Your task to perform on an android device: Open the web browser Image 0: 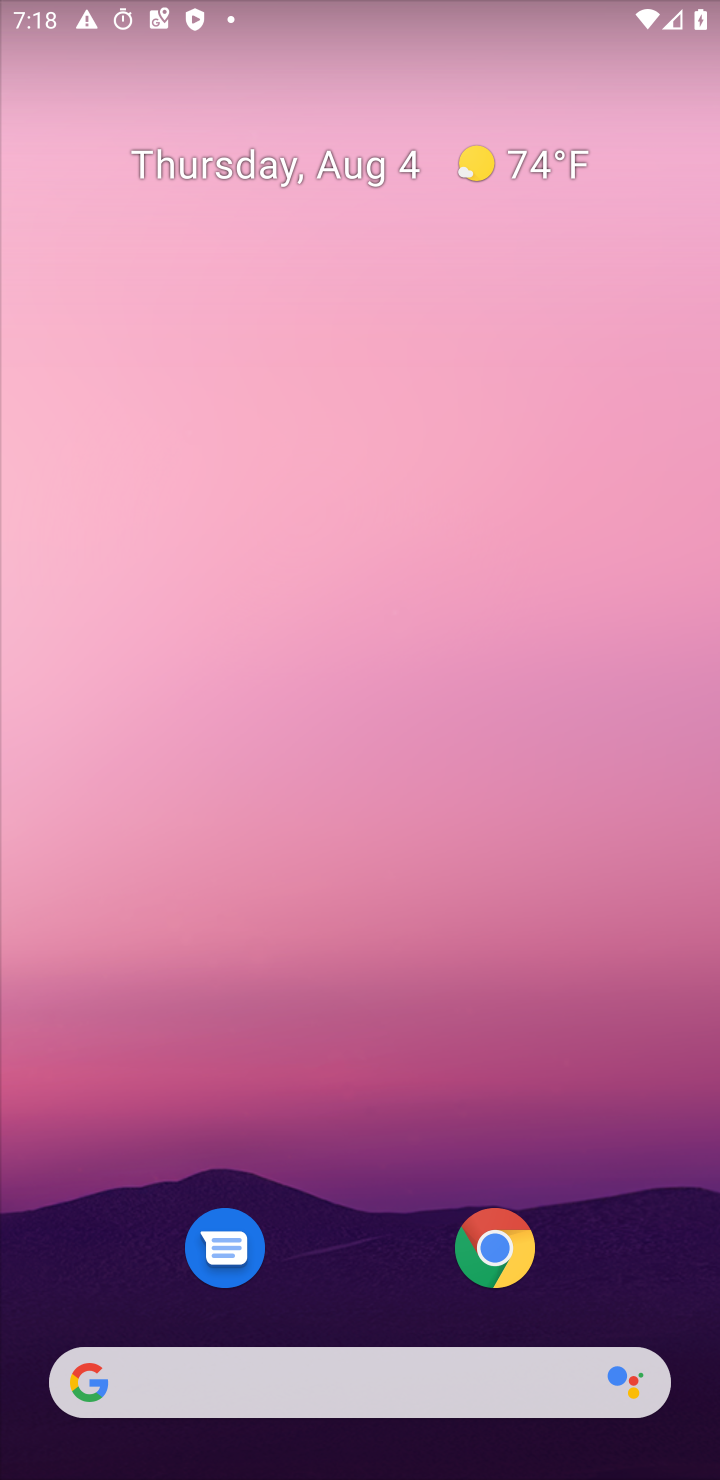
Step 0: press home button
Your task to perform on an android device: Open the web browser Image 1: 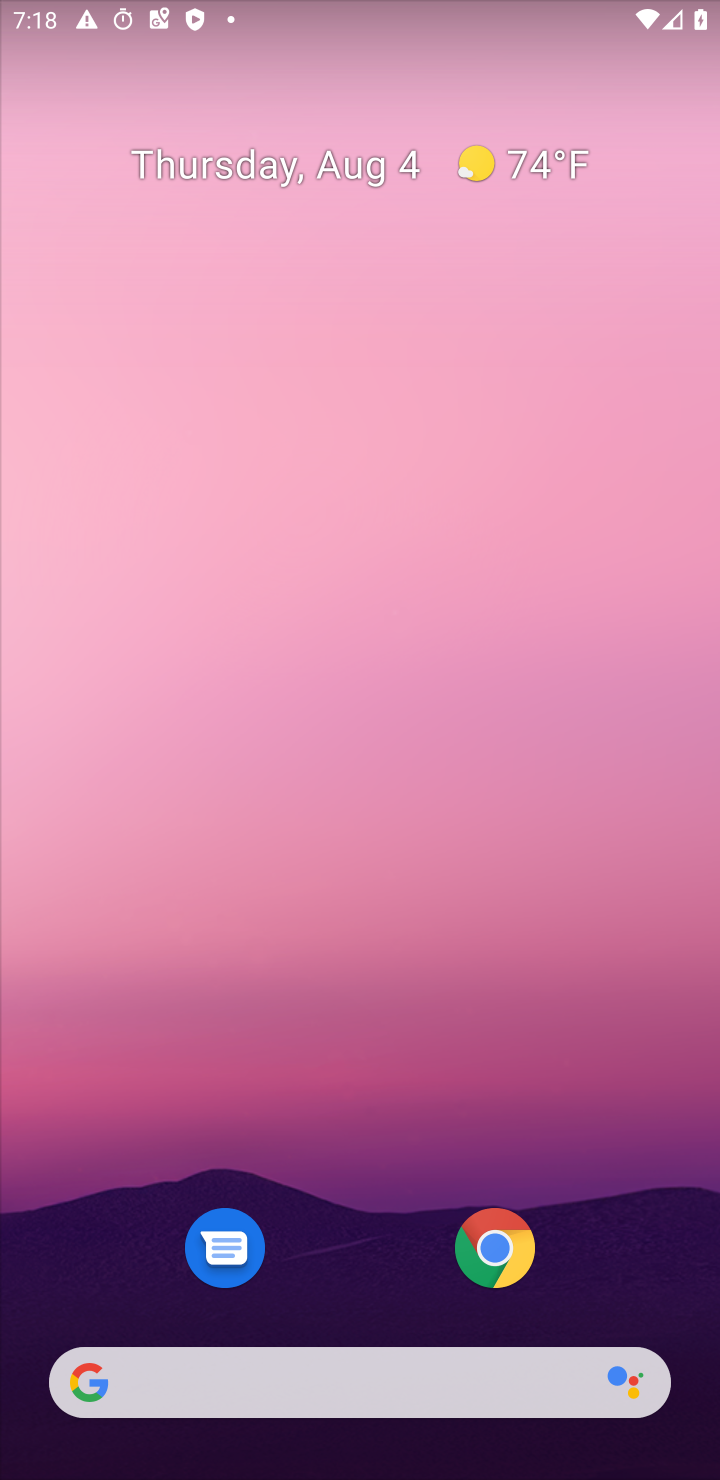
Step 1: drag from (341, 849) to (356, 284)
Your task to perform on an android device: Open the web browser Image 2: 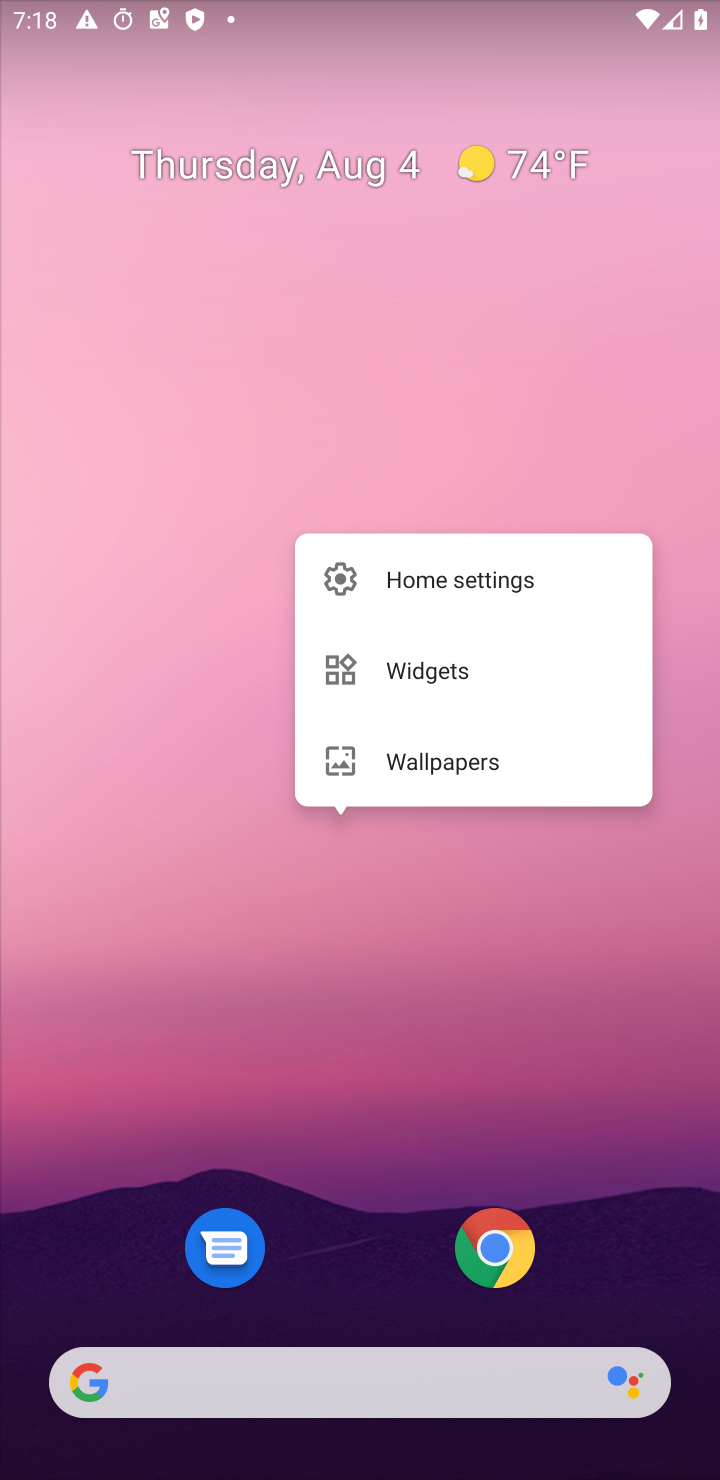
Step 2: click (143, 641)
Your task to perform on an android device: Open the web browser Image 3: 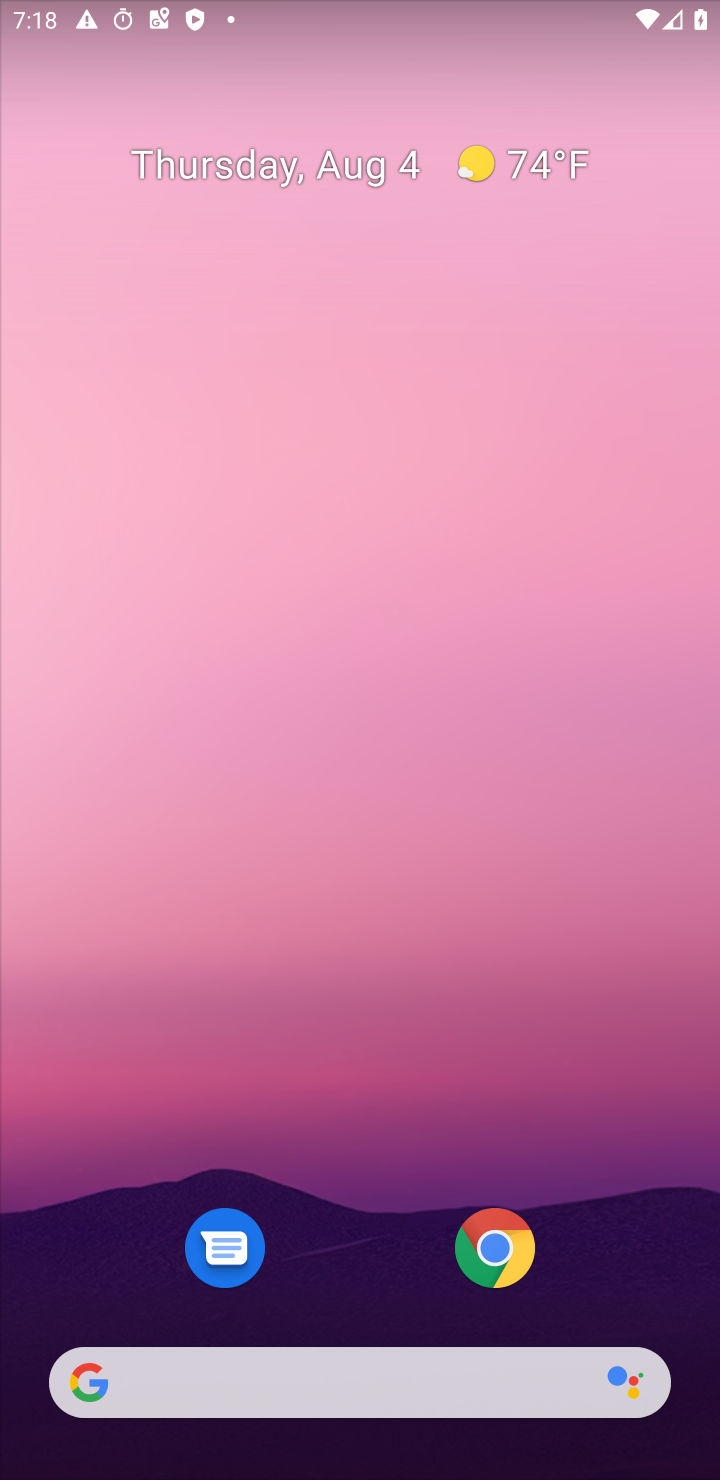
Step 3: drag from (451, 1184) to (276, 77)
Your task to perform on an android device: Open the web browser Image 4: 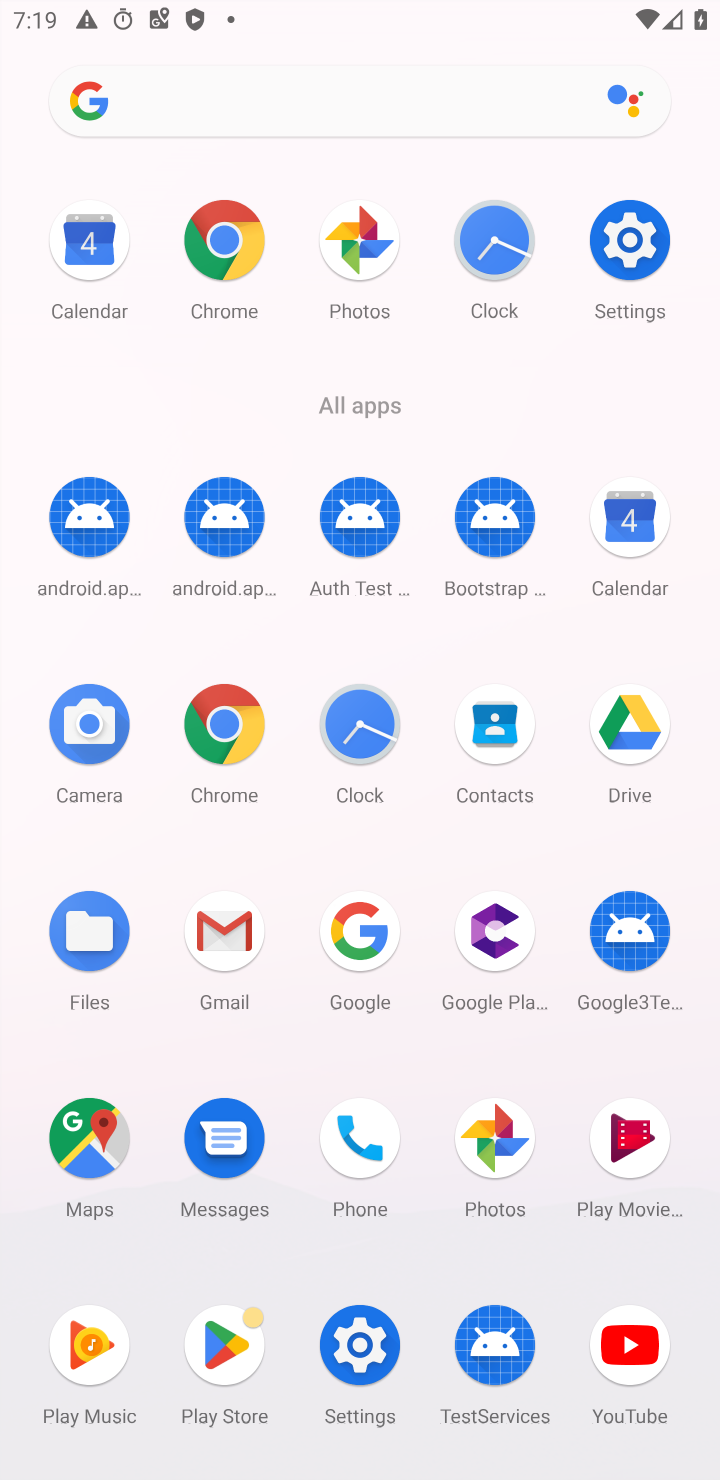
Step 4: click (251, 256)
Your task to perform on an android device: Open the web browser Image 5: 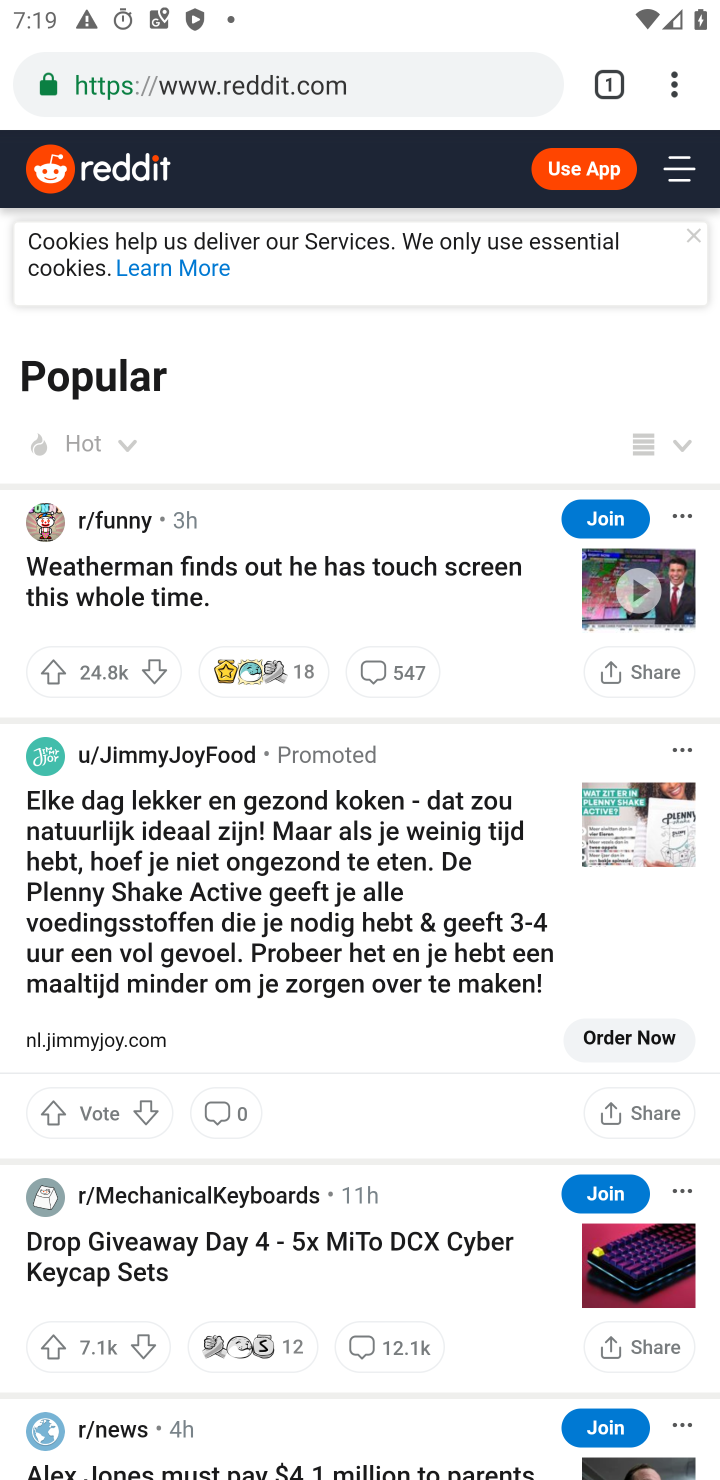
Step 5: click (260, 86)
Your task to perform on an android device: Open the web browser Image 6: 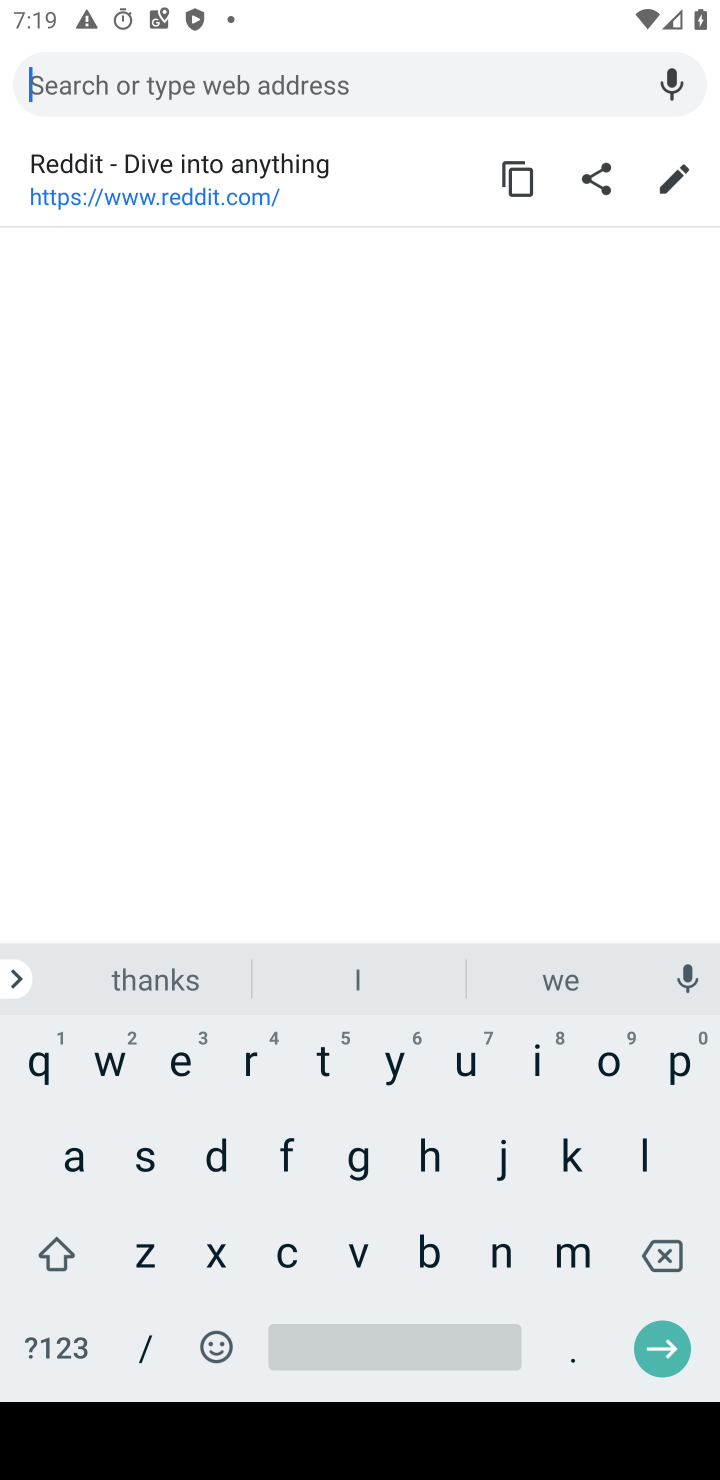
Step 6: task complete